Your task to perform on an android device: Check the settings for the Google Play Books app Image 0: 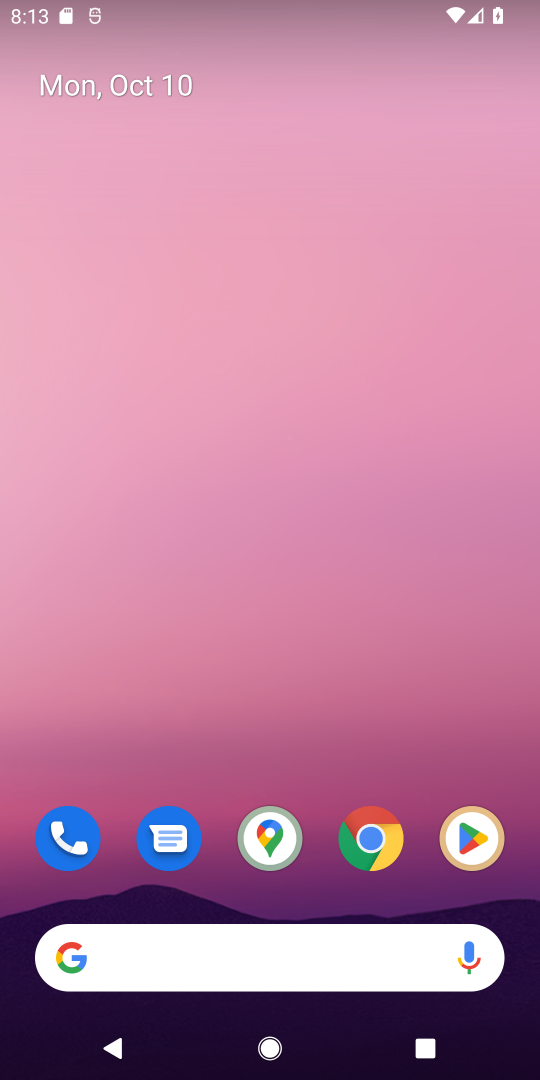
Step 0: click (472, 849)
Your task to perform on an android device: Check the settings for the Google Play Books app Image 1: 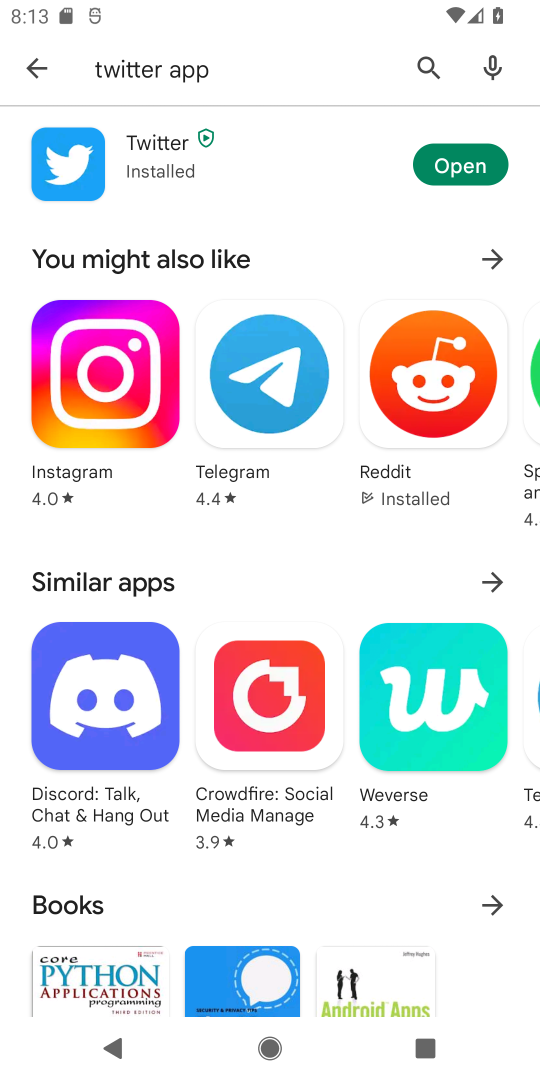
Step 1: click (423, 66)
Your task to perform on an android device: Check the settings for the Google Play Books app Image 2: 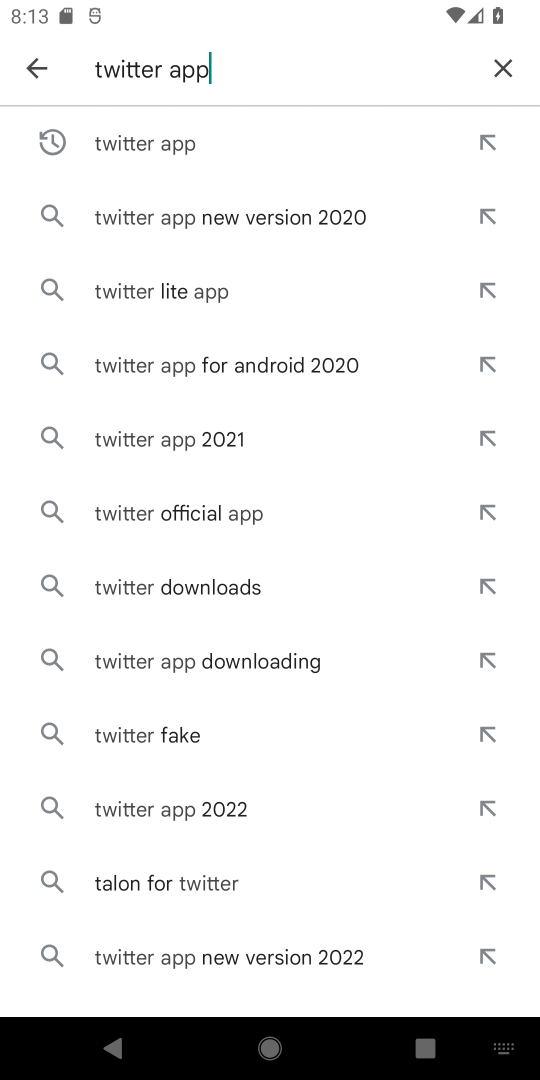
Step 2: click (500, 64)
Your task to perform on an android device: Check the settings for the Google Play Books app Image 3: 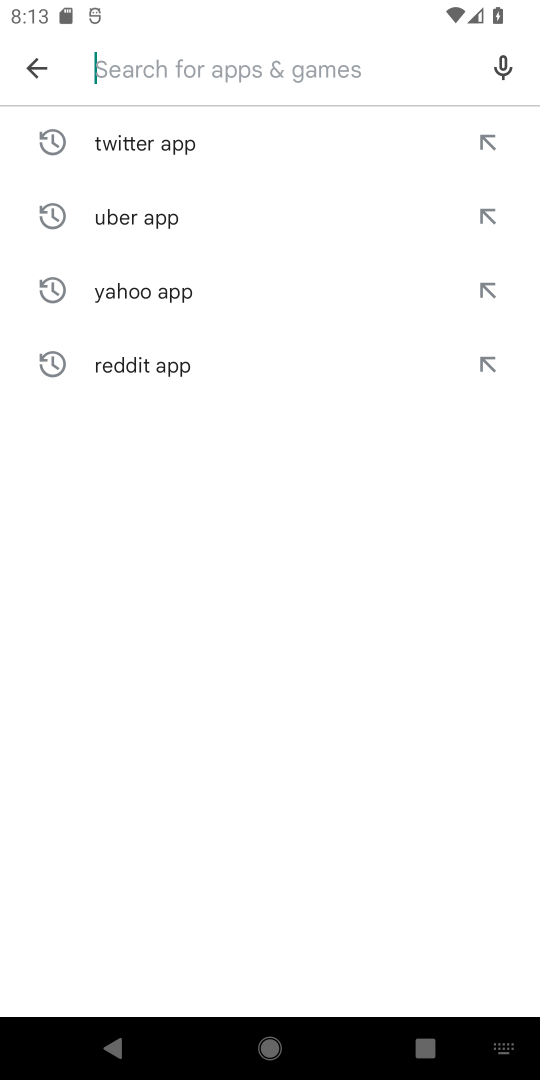
Step 3: type "google play books app"
Your task to perform on an android device: Check the settings for the Google Play Books app Image 4: 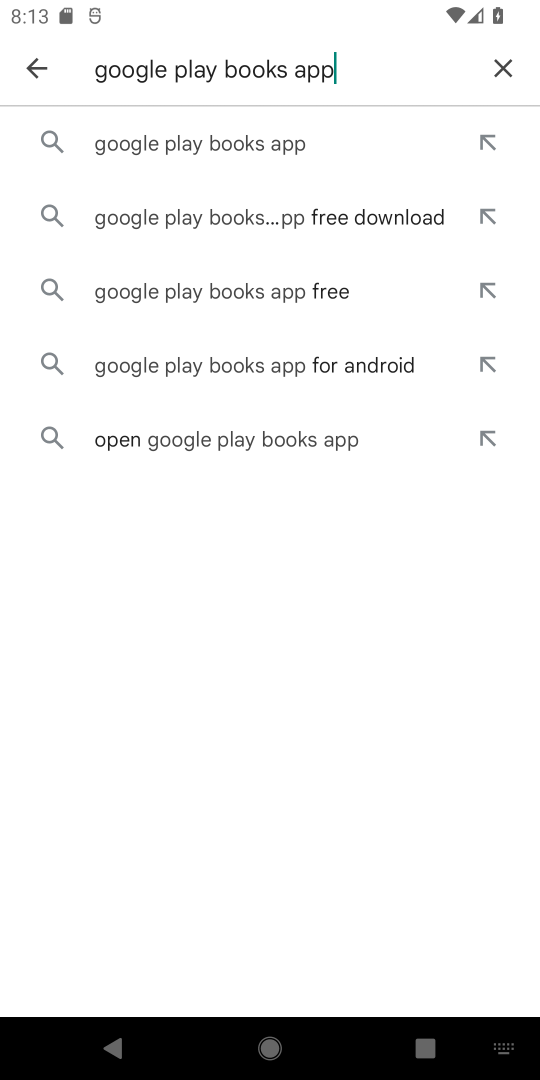
Step 4: click (140, 143)
Your task to perform on an android device: Check the settings for the Google Play Books app Image 5: 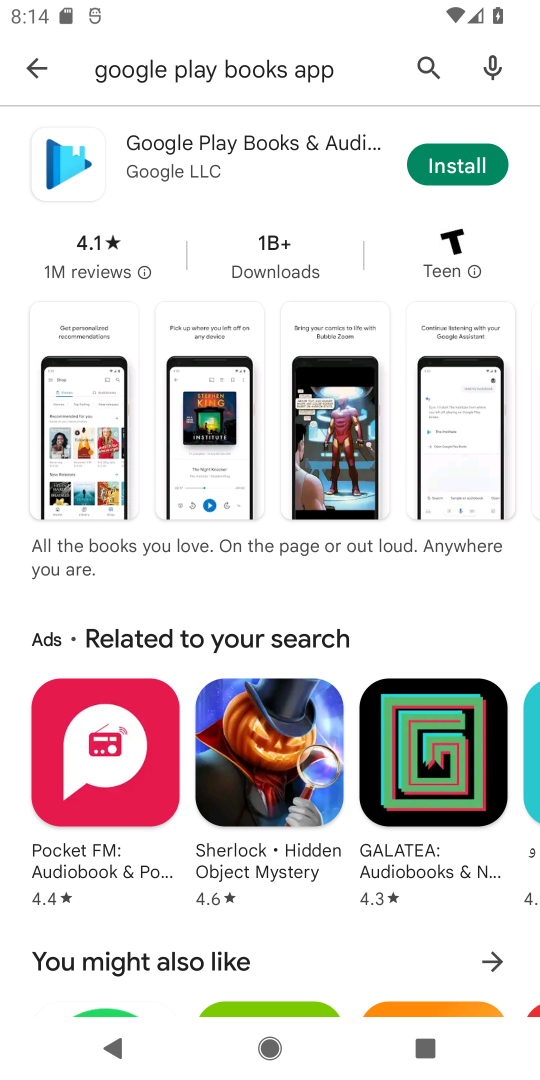
Step 5: click (460, 163)
Your task to perform on an android device: Check the settings for the Google Play Books app Image 6: 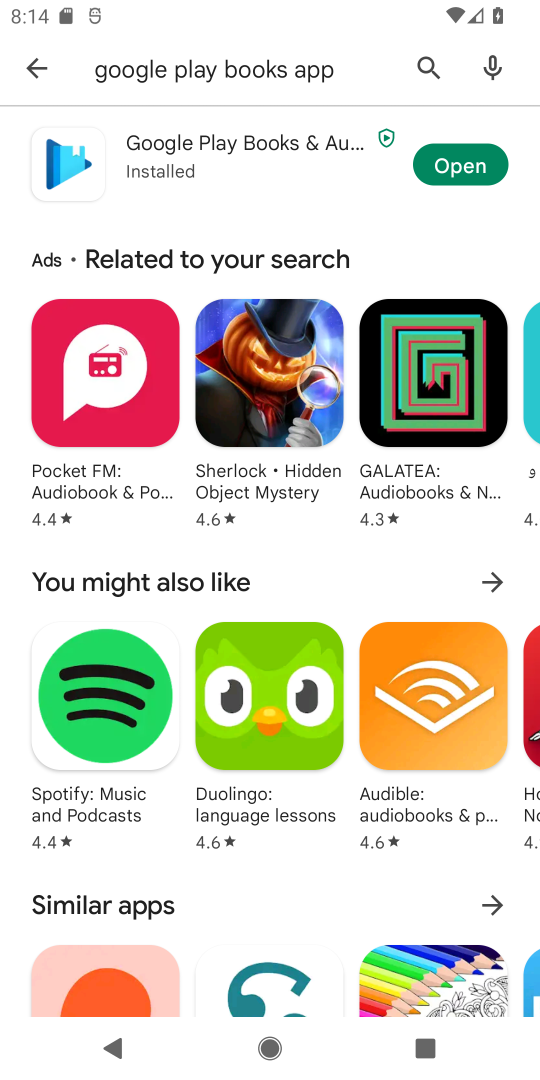
Step 6: click (453, 164)
Your task to perform on an android device: Check the settings for the Google Play Books app Image 7: 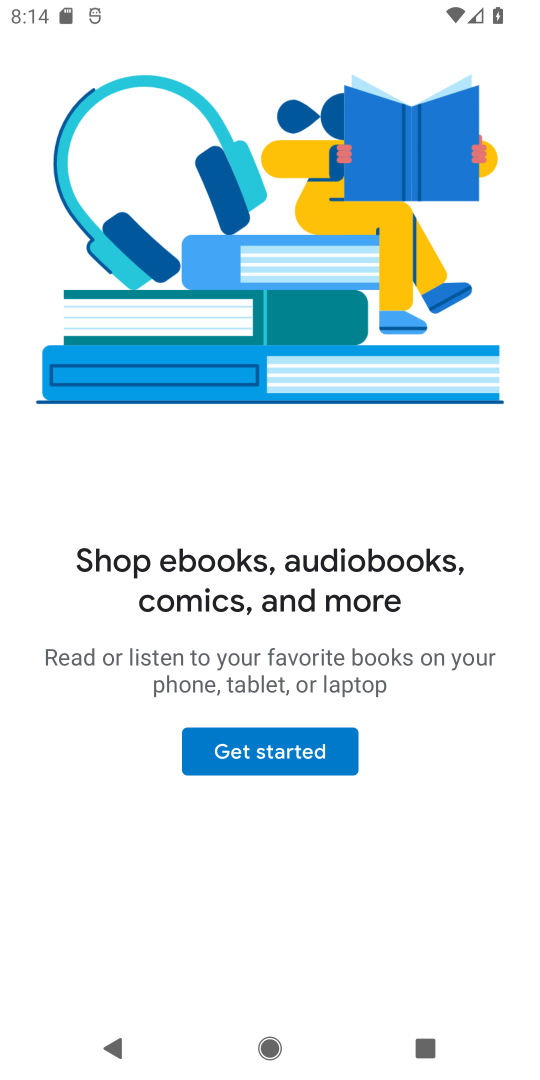
Step 7: click (259, 747)
Your task to perform on an android device: Check the settings for the Google Play Books app Image 8: 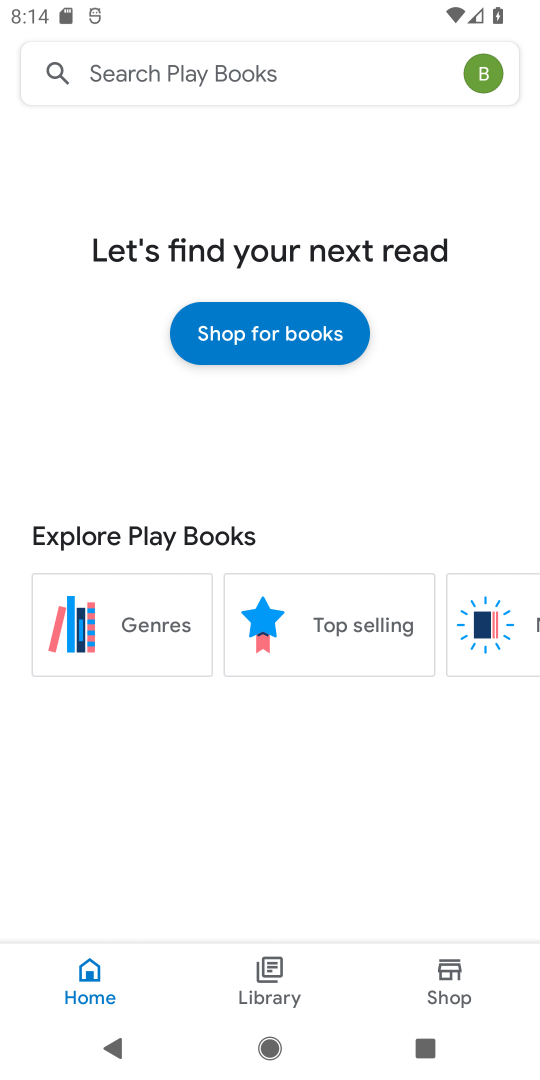
Step 8: click (481, 77)
Your task to perform on an android device: Check the settings for the Google Play Books app Image 9: 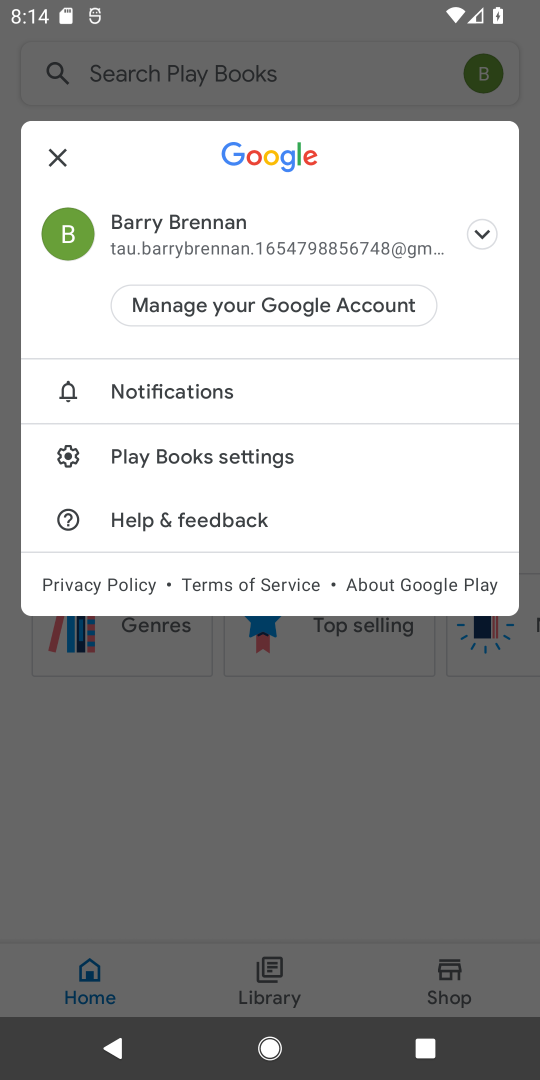
Step 9: click (140, 453)
Your task to perform on an android device: Check the settings for the Google Play Books app Image 10: 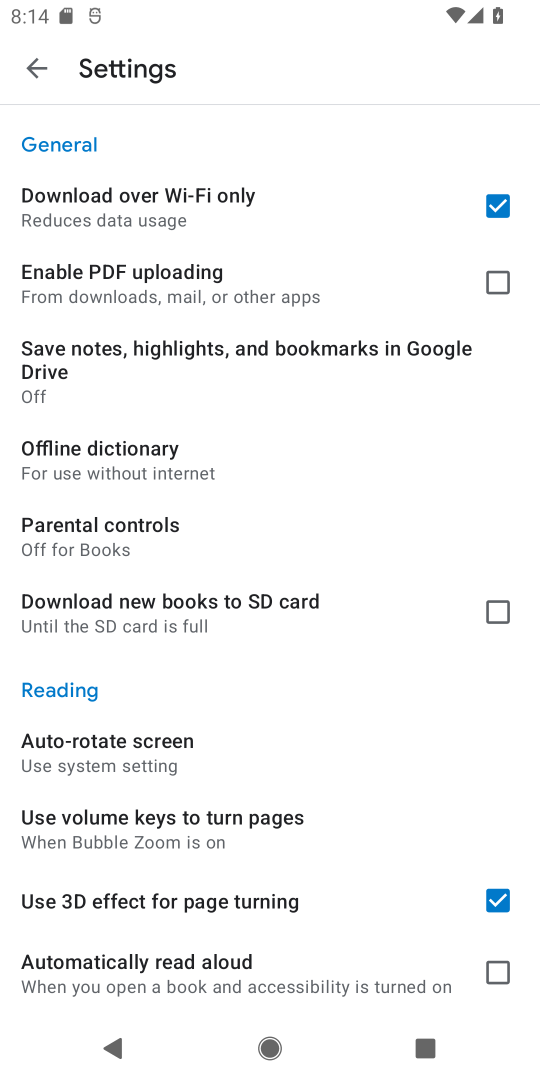
Step 10: task complete